Your task to perform on an android device: Open the calendar app, open the side menu, and click the "Day" option Image 0: 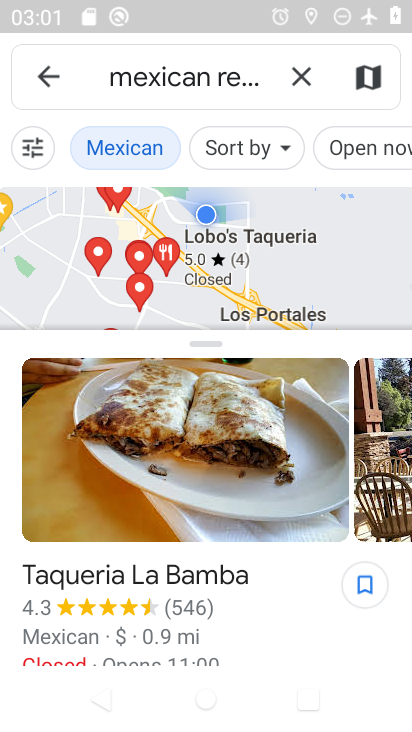
Step 0: press home button
Your task to perform on an android device: Open the calendar app, open the side menu, and click the "Day" option Image 1: 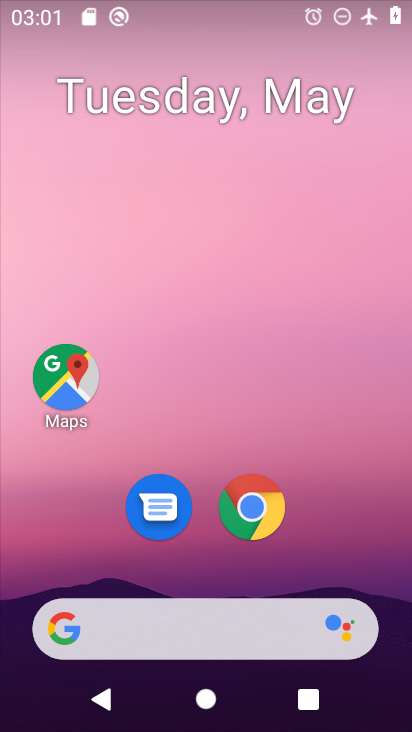
Step 1: drag from (205, 573) to (199, 185)
Your task to perform on an android device: Open the calendar app, open the side menu, and click the "Day" option Image 2: 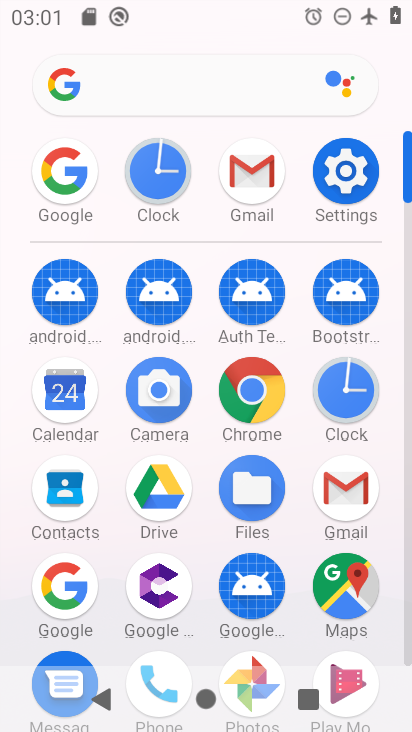
Step 2: click (69, 398)
Your task to perform on an android device: Open the calendar app, open the side menu, and click the "Day" option Image 3: 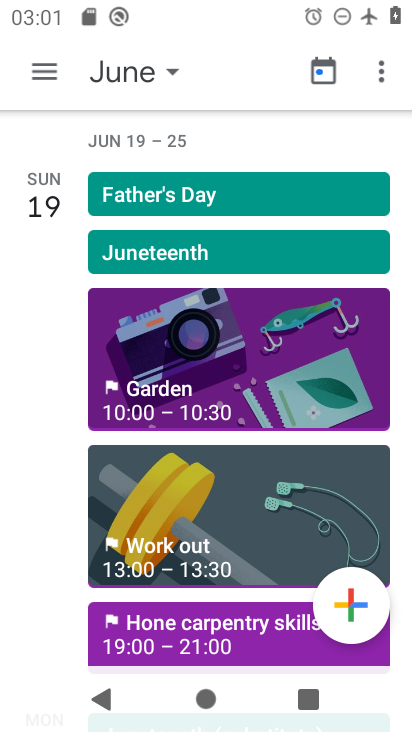
Step 3: click (44, 71)
Your task to perform on an android device: Open the calendar app, open the side menu, and click the "Day" option Image 4: 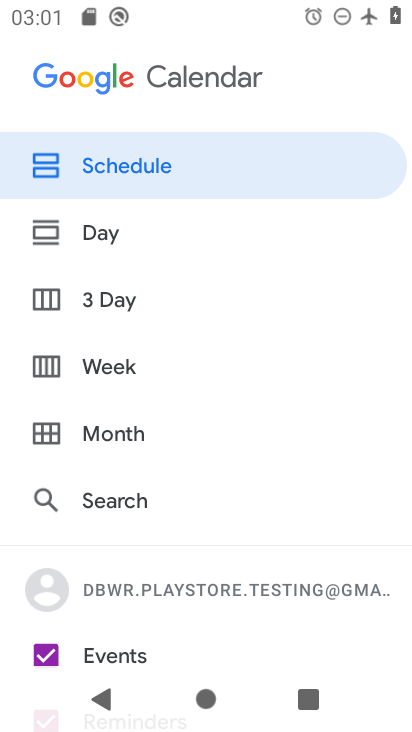
Step 4: click (107, 237)
Your task to perform on an android device: Open the calendar app, open the side menu, and click the "Day" option Image 5: 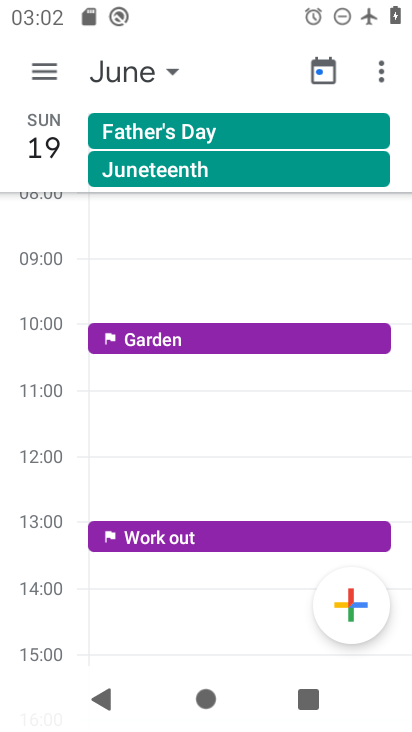
Step 5: task complete